Your task to perform on an android device: Search for sushi restaurants on Maps Image 0: 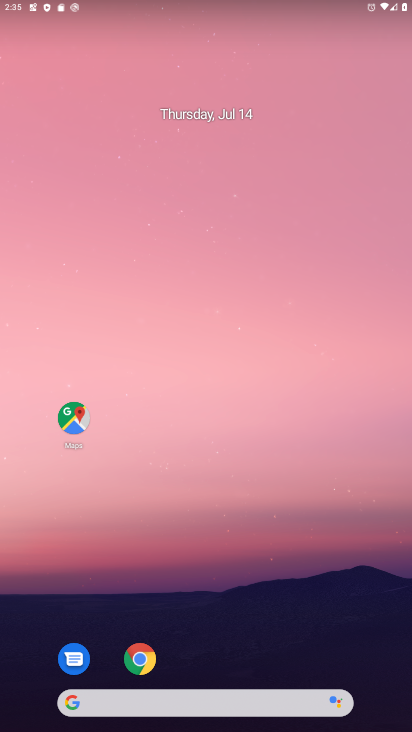
Step 0: press home button
Your task to perform on an android device: Search for sushi restaurants on Maps Image 1: 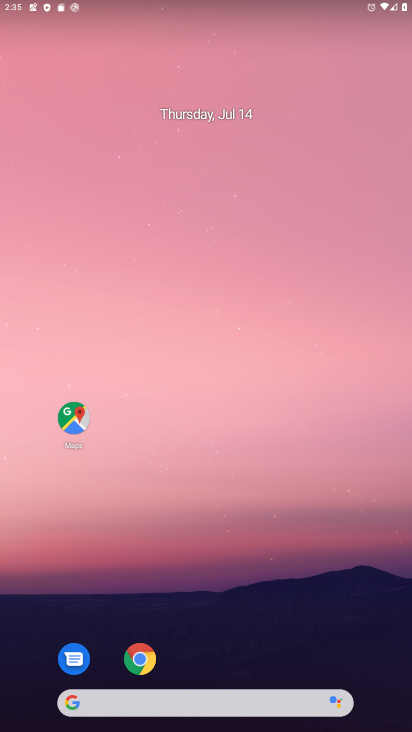
Step 1: drag from (267, 640) to (181, 5)
Your task to perform on an android device: Search for sushi restaurants on Maps Image 2: 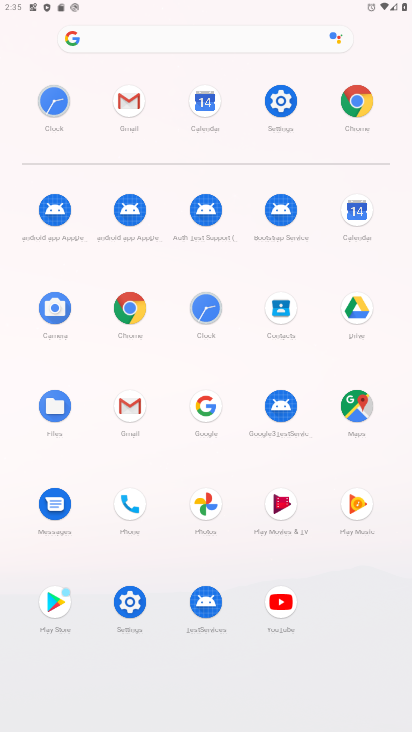
Step 2: click (353, 410)
Your task to perform on an android device: Search for sushi restaurants on Maps Image 3: 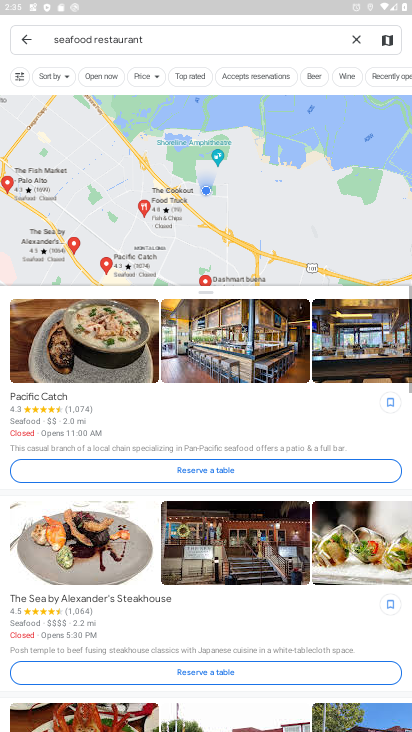
Step 3: click (357, 41)
Your task to perform on an android device: Search for sushi restaurants on Maps Image 4: 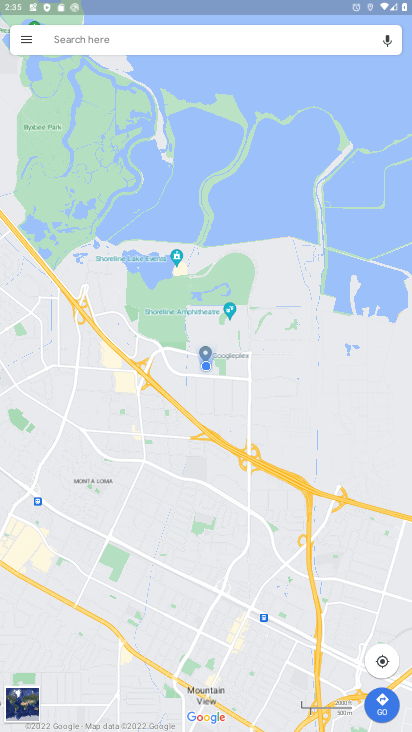
Step 4: click (149, 36)
Your task to perform on an android device: Search for sushi restaurants on Maps Image 5: 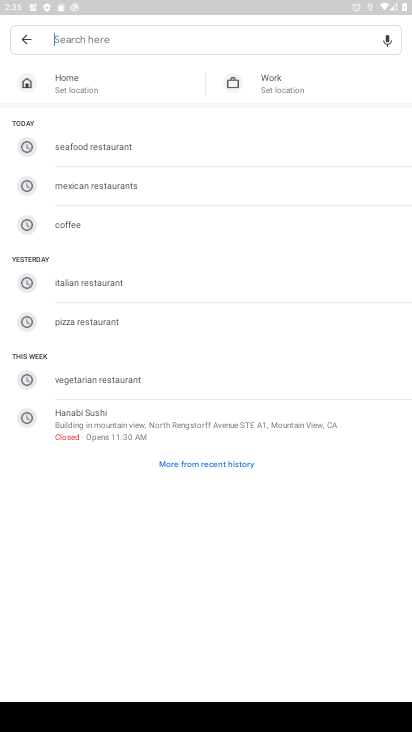
Step 5: type "sushi restaurants"
Your task to perform on an android device: Search for sushi restaurants on Maps Image 6: 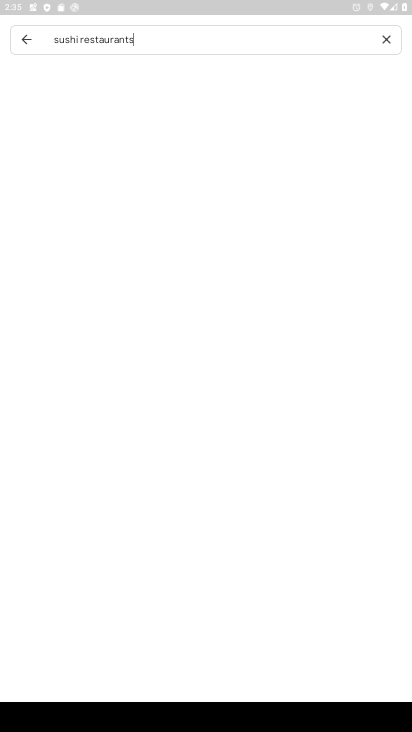
Step 6: press enter
Your task to perform on an android device: Search for sushi restaurants on Maps Image 7: 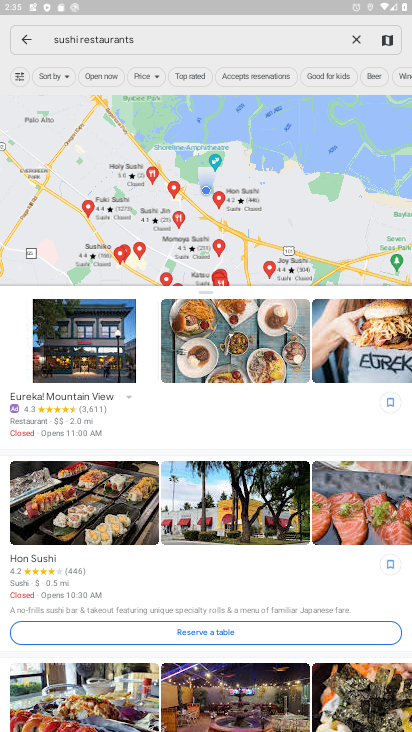
Step 7: task complete